Your task to perform on an android device: Go to CNN.com Image 0: 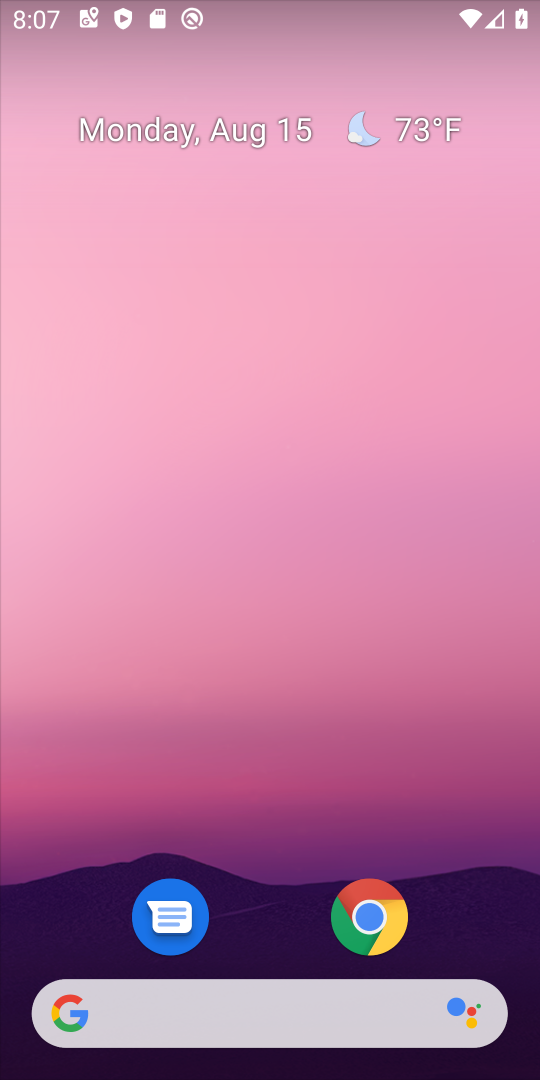
Step 0: click (290, 1014)
Your task to perform on an android device: Go to CNN.com Image 1: 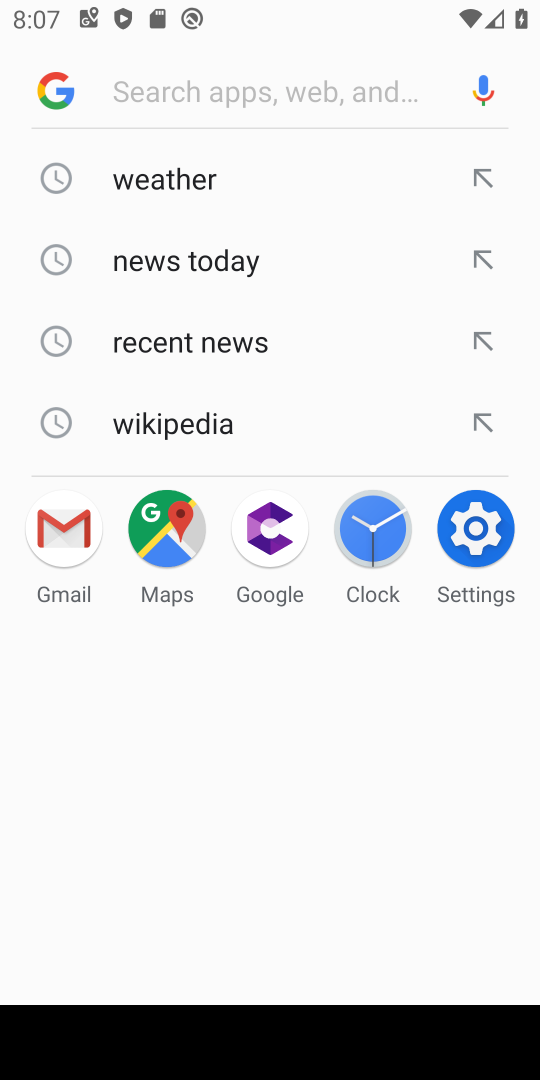
Step 1: type "cnn.com"
Your task to perform on an android device: Go to CNN.com Image 2: 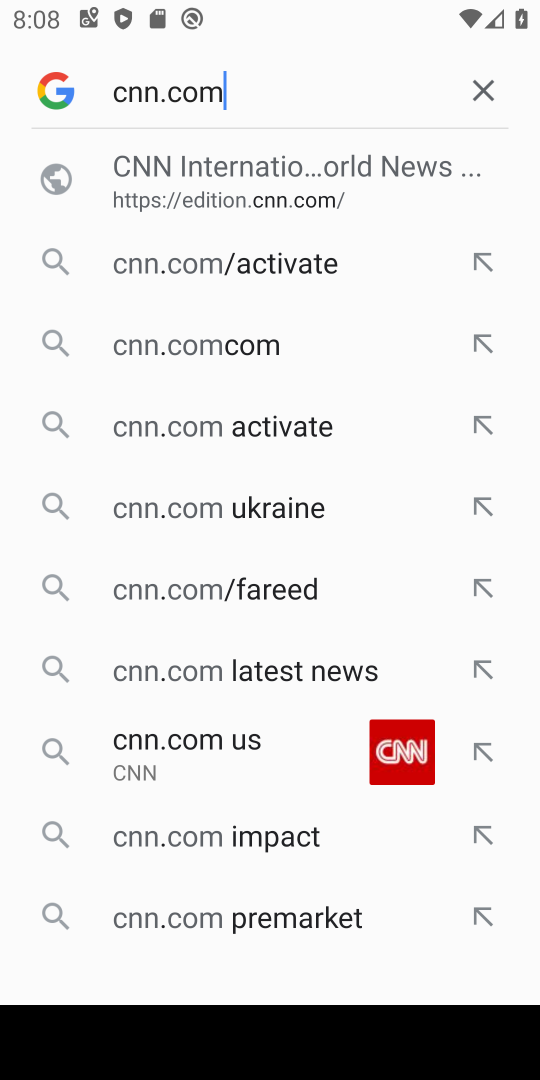
Step 2: click (287, 104)
Your task to perform on an android device: Go to CNN.com Image 3: 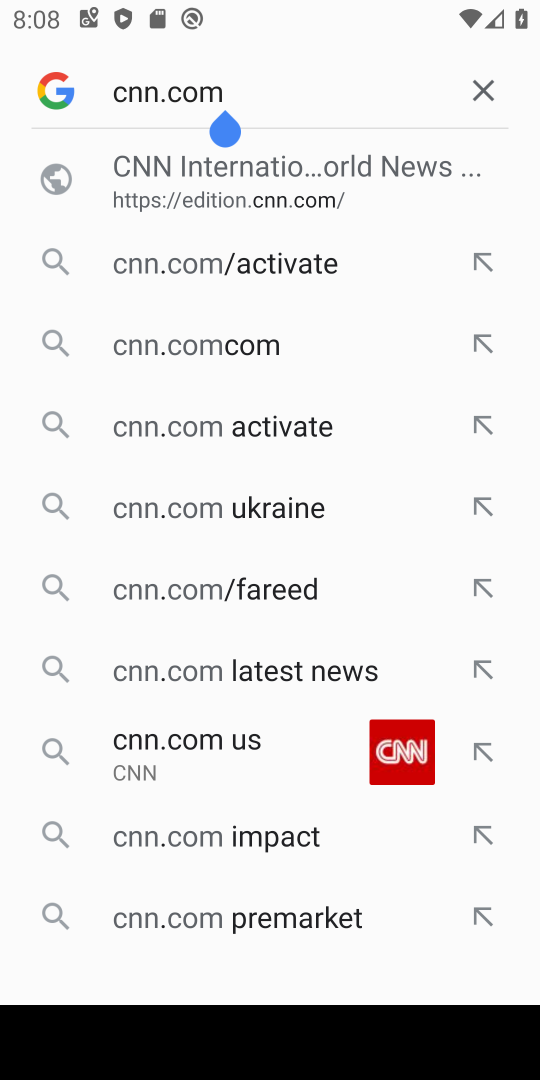
Step 3: click (288, 175)
Your task to perform on an android device: Go to CNN.com Image 4: 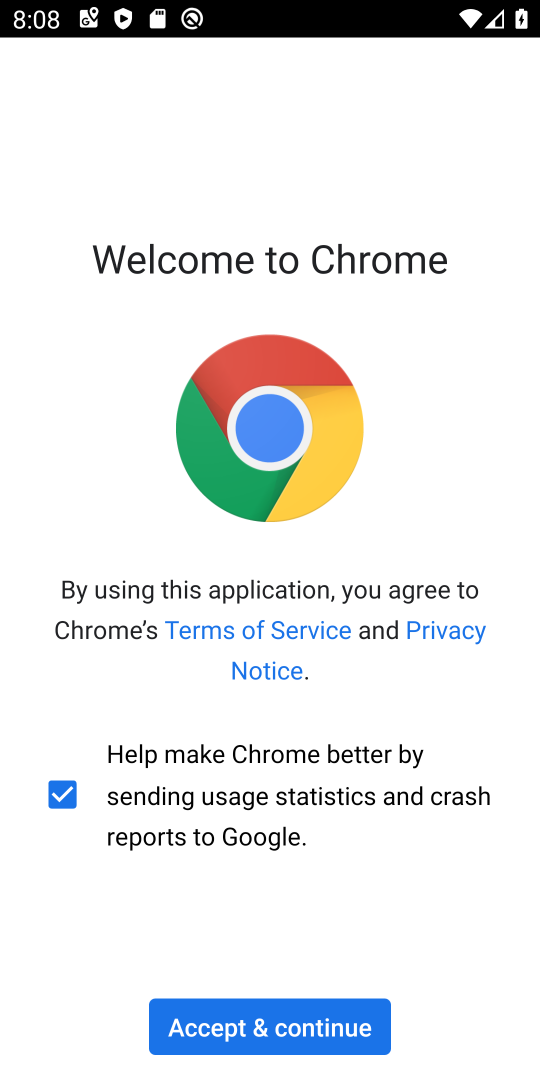
Step 4: click (360, 1042)
Your task to perform on an android device: Go to CNN.com Image 5: 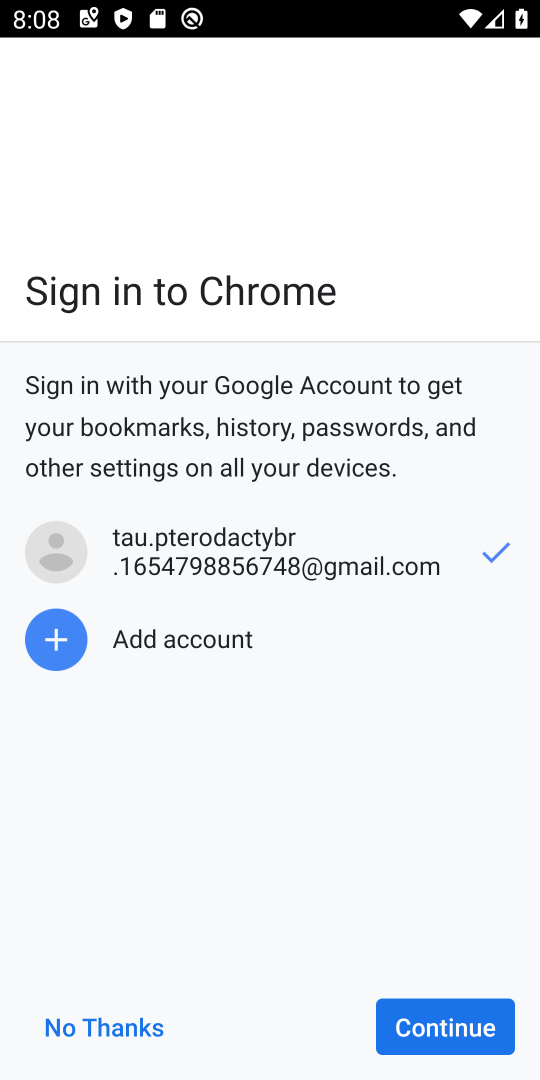
Step 5: click (426, 1028)
Your task to perform on an android device: Go to CNN.com Image 6: 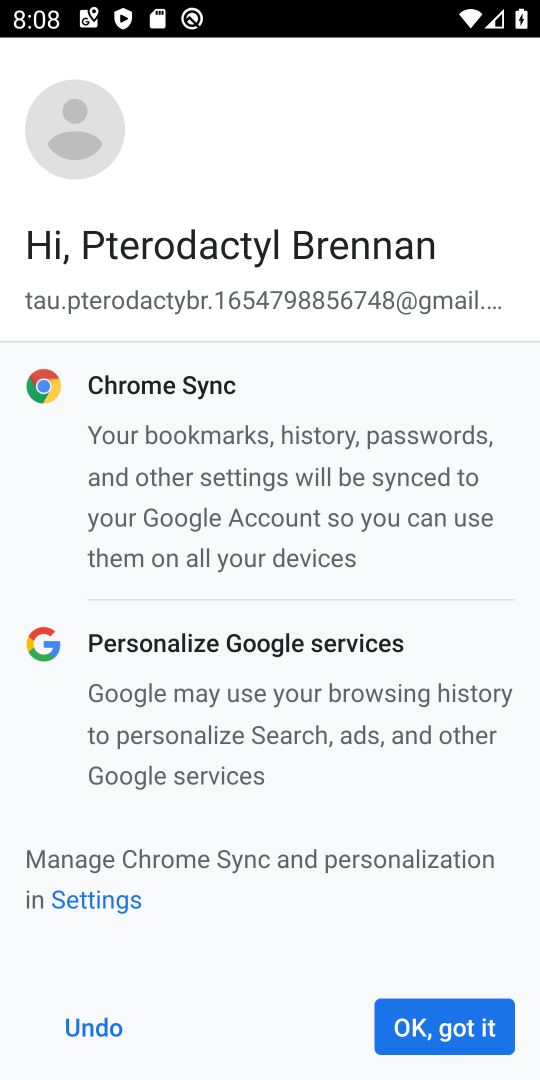
Step 6: click (426, 1028)
Your task to perform on an android device: Go to CNN.com Image 7: 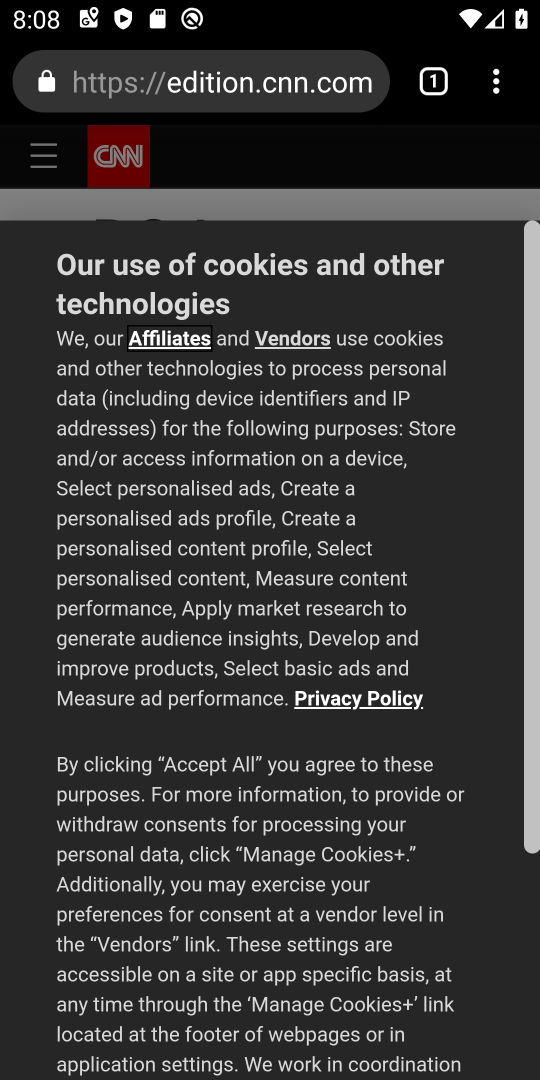
Step 7: drag from (286, 895) to (267, 269)
Your task to perform on an android device: Go to CNN.com Image 8: 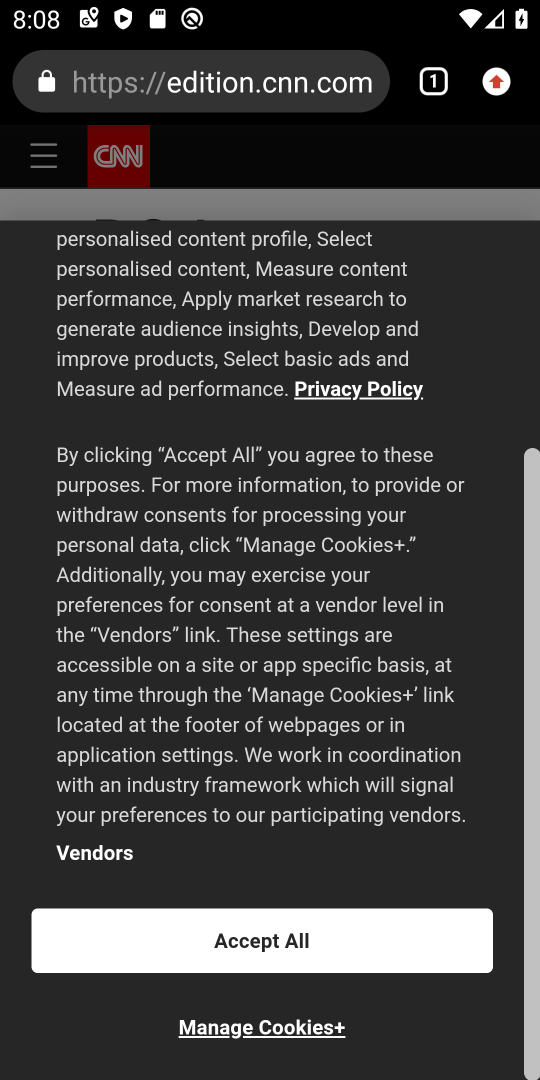
Step 8: click (234, 944)
Your task to perform on an android device: Go to CNN.com Image 9: 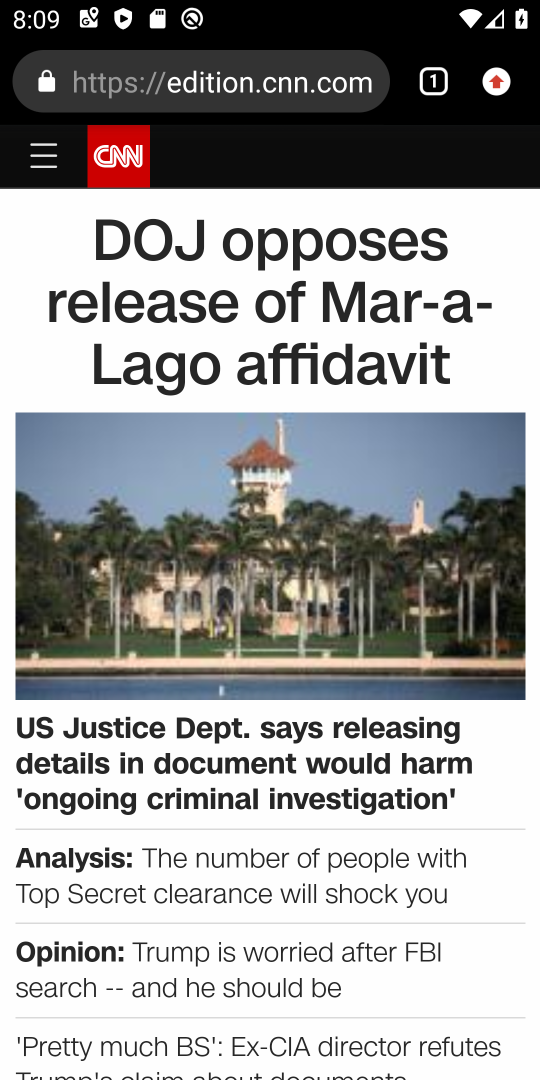
Step 9: drag from (338, 920) to (284, 379)
Your task to perform on an android device: Go to CNN.com Image 10: 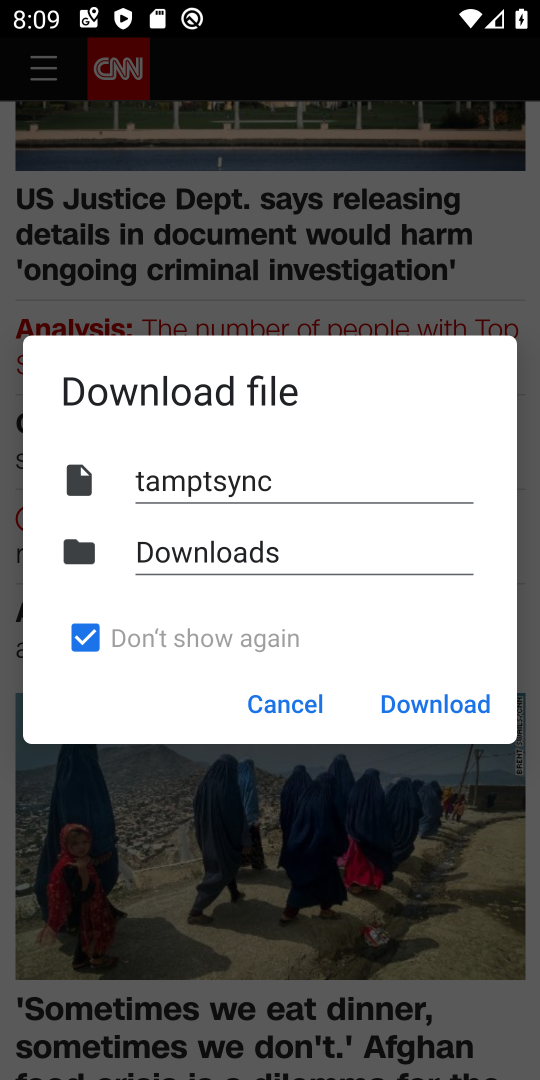
Step 10: click (283, 693)
Your task to perform on an android device: Go to CNN.com Image 11: 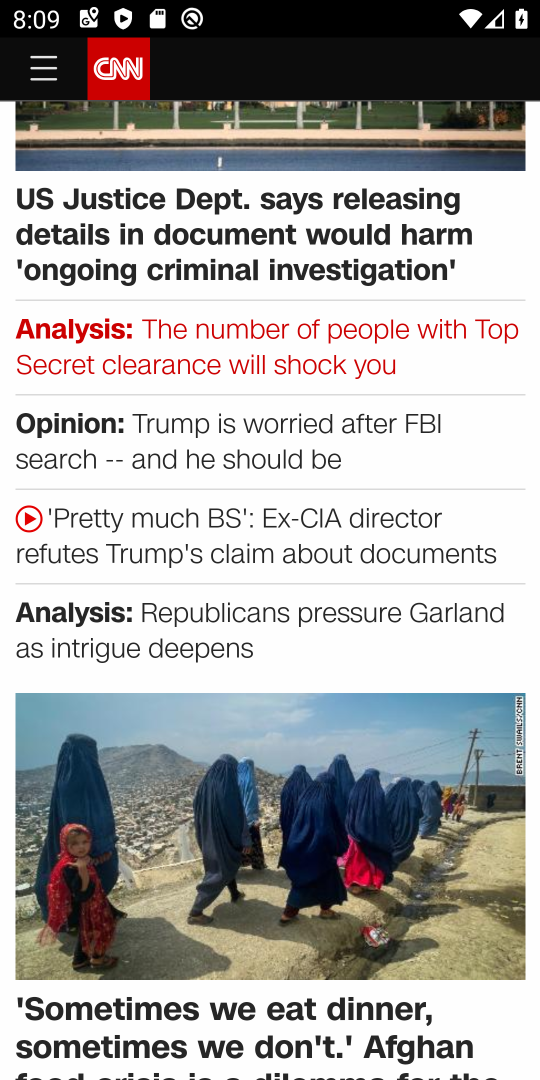
Step 11: task complete